Your task to perform on an android device: Open Yahoo.com Image 0: 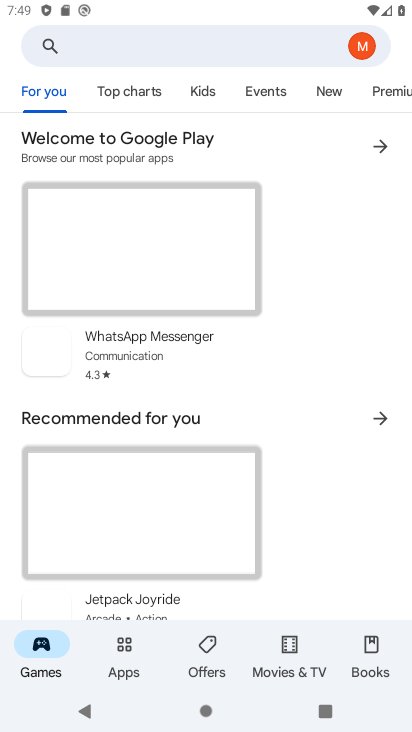
Step 0: press home button
Your task to perform on an android device: Open Yahoo.com Image 1: 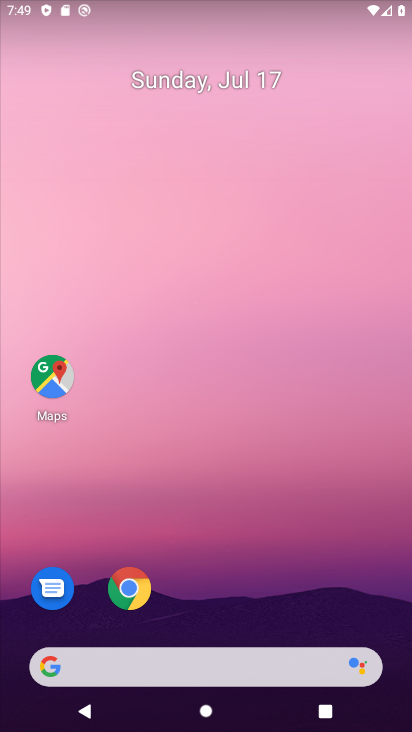
Step 1: drag from (226, 465) to (231, 242)
Your task to perform on an android device: Open Yahoo.com Image 2: 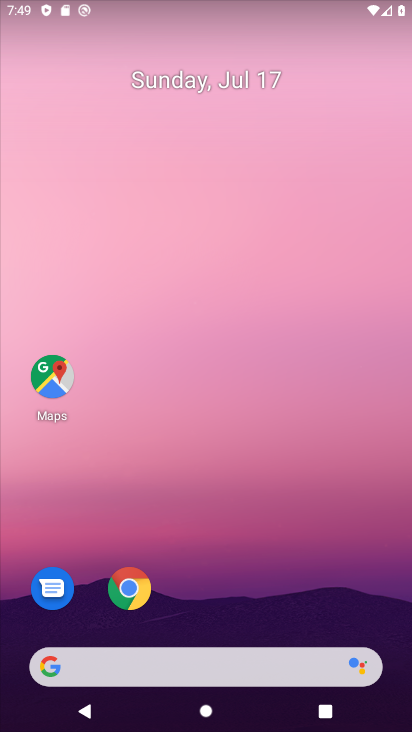
Step 2: drag from (245, 667) to (261, 287)
Your task to perform on an android device: Open Yahoo.com Image 3: 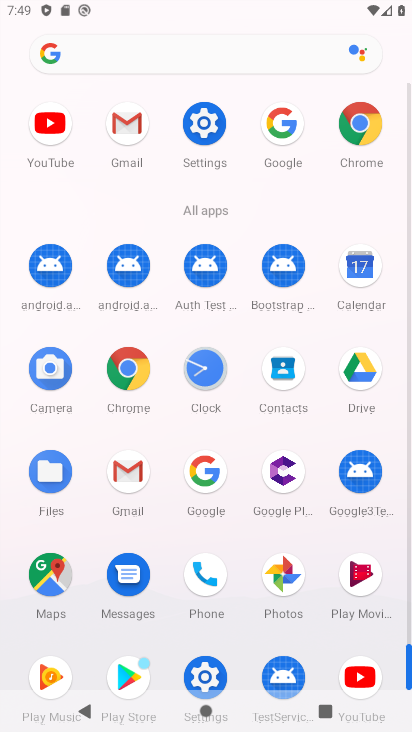
Step 3: drag from (263, 395) to (296, 228)
Your task to perform on an android device: Open Yahoo.com Image 4: 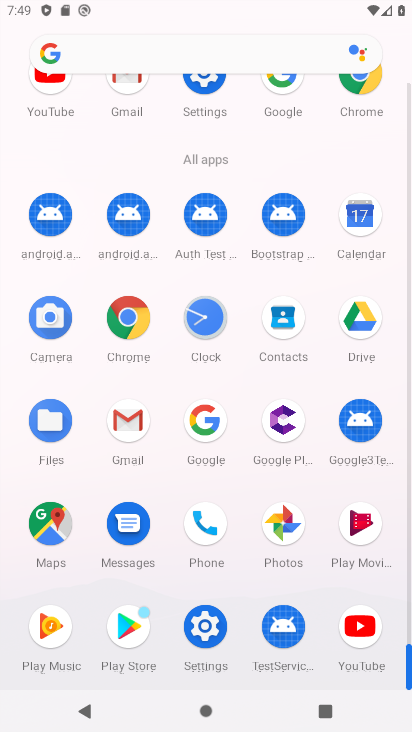
Step 4: drag from (252, 484) to (290, 224)
Your task to perform on an android device: Open Yahoo.com Image 5: 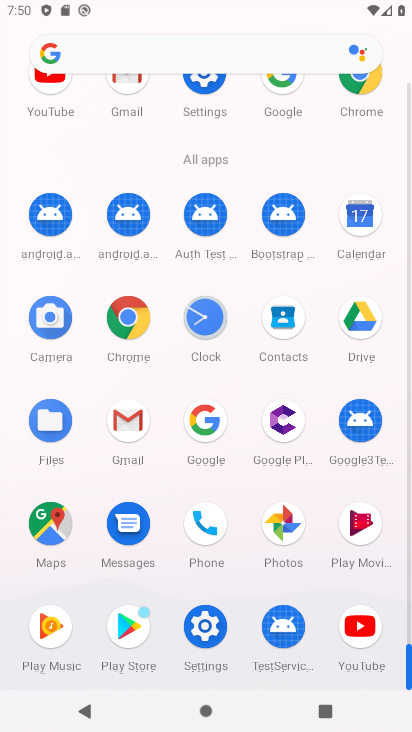
Step 5: click (129, 346)
Your task to perform on an android device: Open Yahoo.com Image 6: 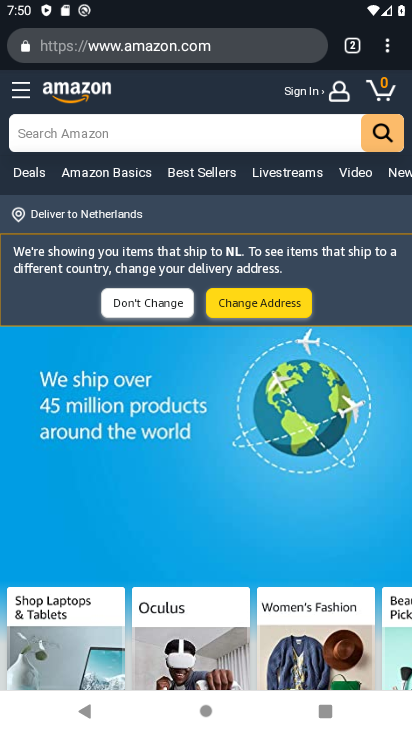
Step 6: click (241, 49)
Your task to perform on an android device: Open Yahoo.com Image 7: 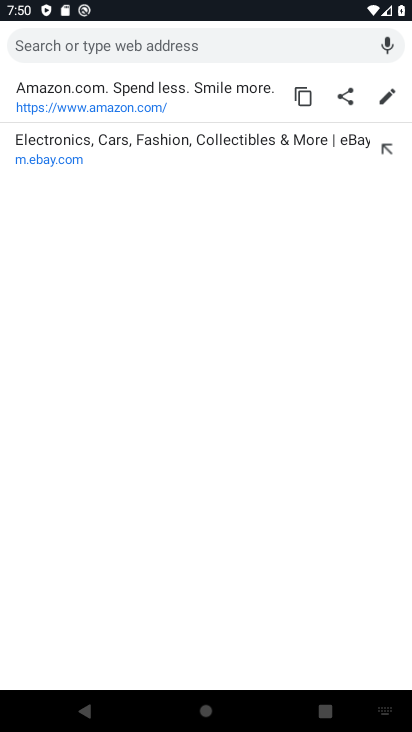
Step 7: type "yahoo"
Your task to perform on an android device: Open Yahoo.com Image 8: 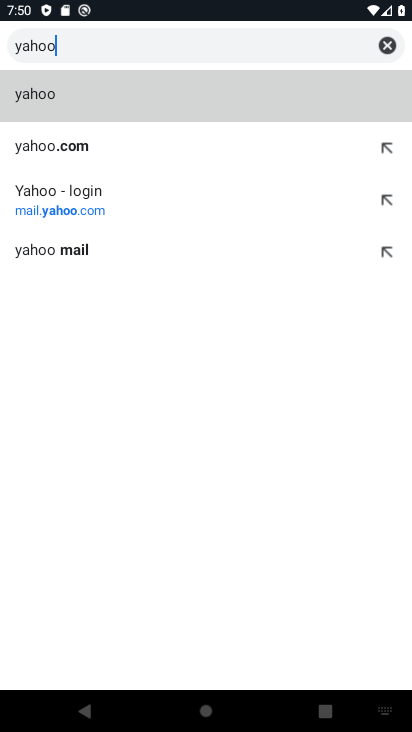
Step 8: click (109, 210)
Your task to perform on an android device: Open Yahoo.com Image 9: 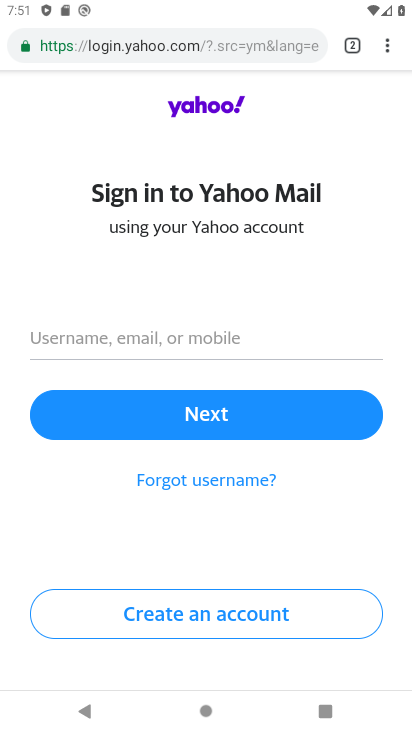
Step 9: task complete